Your task to perform on an android device: Go to wifi settings Image 0: 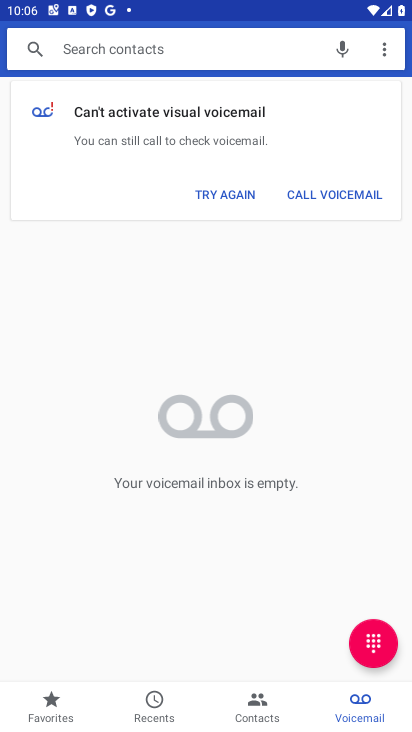
Step 0: press home button
Your task to perform on an android device: Go to wifi settings Image 1: 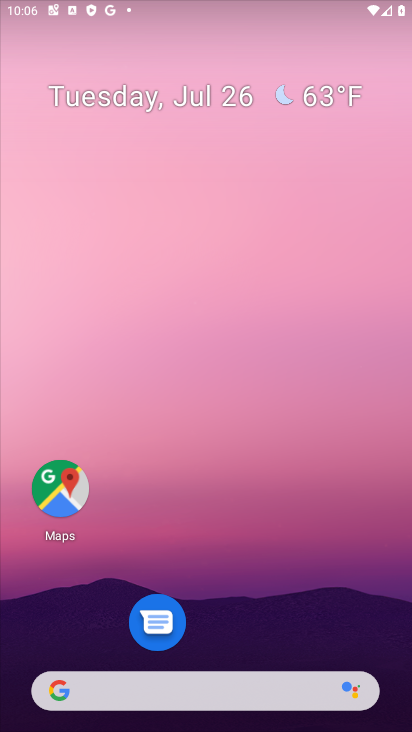
Step 1: drag from (306, 573) to (278, 19)
Your task to perform on an android device: Go to wifi settings Image 2: 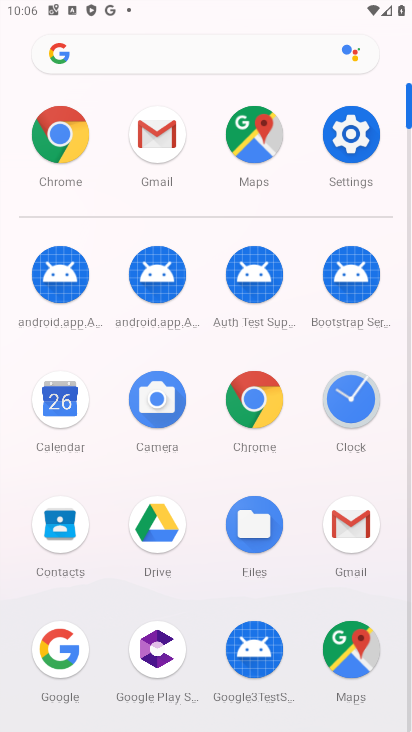
Step 2: click (339, 156)
Your task to perform on an android device: Go to wifi settings Image 3: 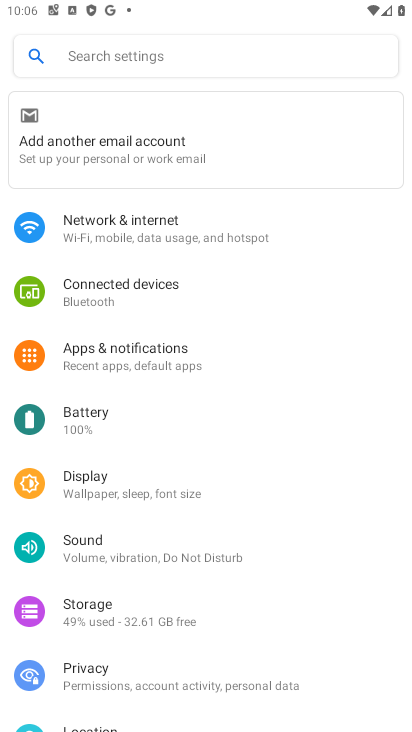
Step 3: click (149, 233)
Your task to perform on an android device: Go to wifi settings Image 4: 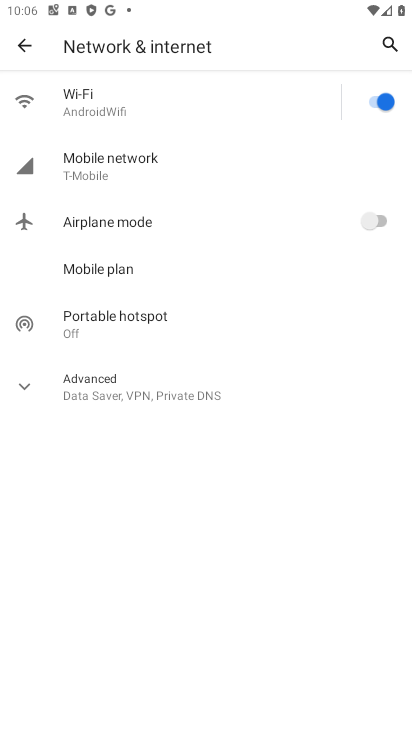
Step 4: click (108, 120)
Your task to perform on an android device: Go to wifi settings Image 5: 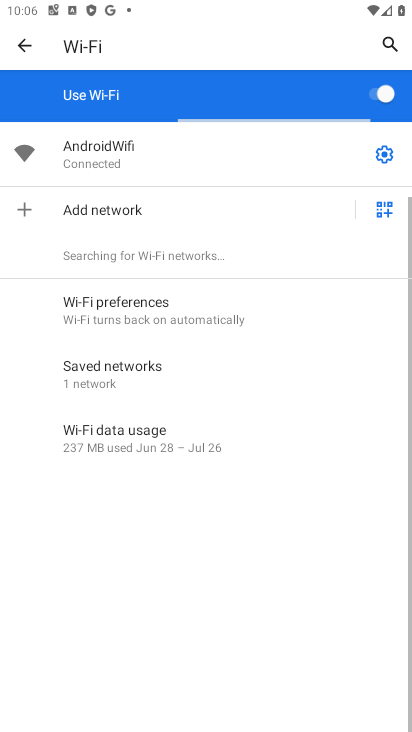
Step 5: task complete